Your task to perform on an android device: toggle translation in the chrome app Image 0: 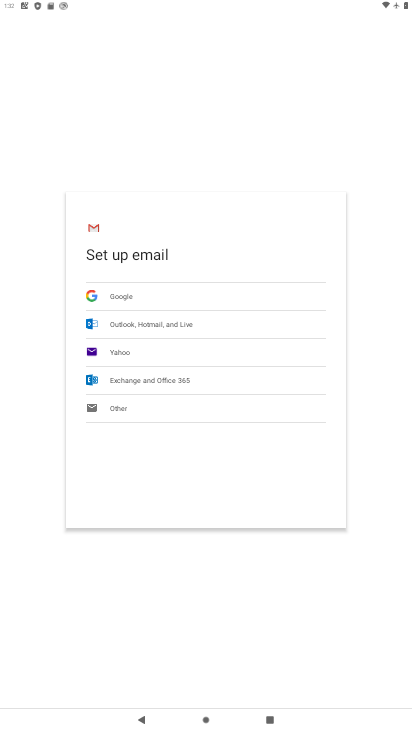
Step 0: press home button
Your task to perform on an android device: toggle translation in the chrome app Image 1: 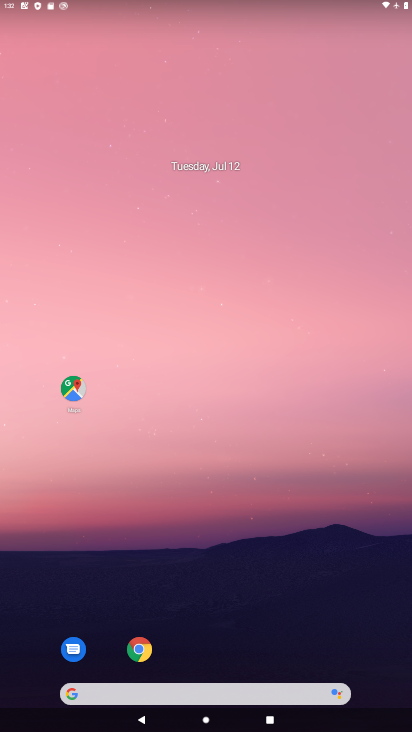
Step 1: click (148, 659)
Your task to perform on an android device: toggle translation in the chrome app Image 2: 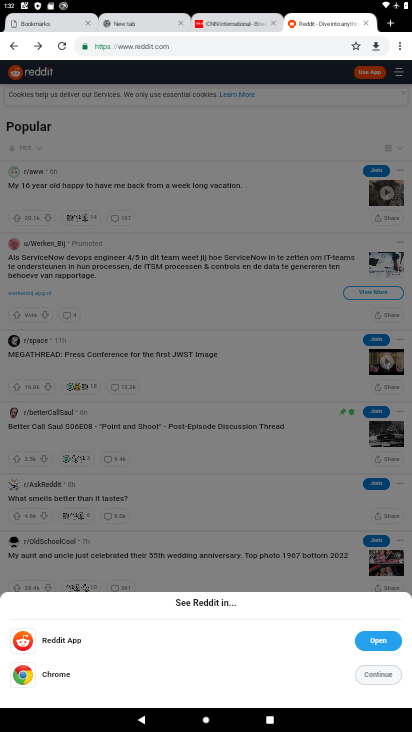
Step 2: click (401, 37)
Your task to perform on an android device: toggle translation in the chrome app Image 3: 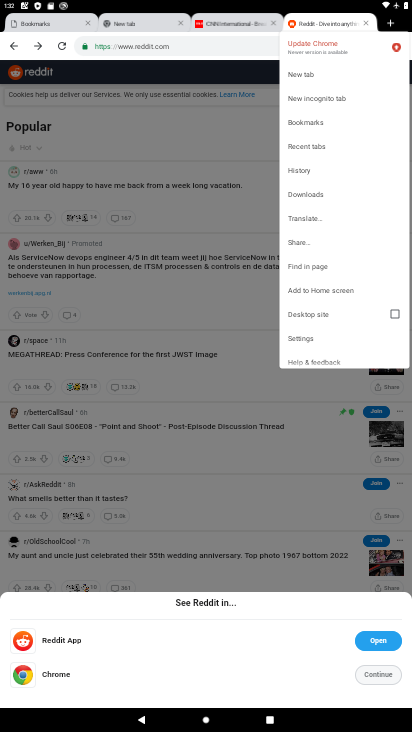
Step 3: click (341, 333)
Your task to perform on an android device: toggle translation in the chrome app Image 4: 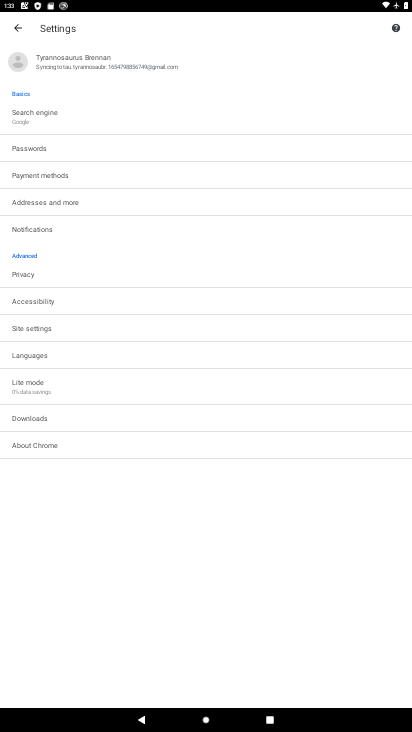
Step 4: click (142, 362)
Your task to perform on an android device: toggle translation in the chrome app Image 5: 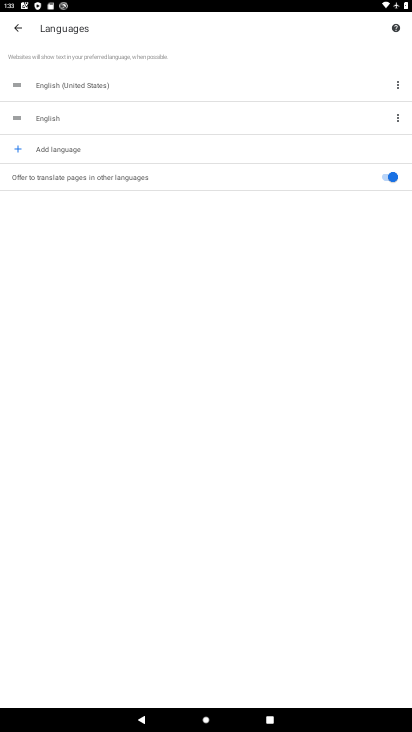
Step 5: click (387, 180)
Your task to perform on an android device: toggle translation in the chrome app Image 6: 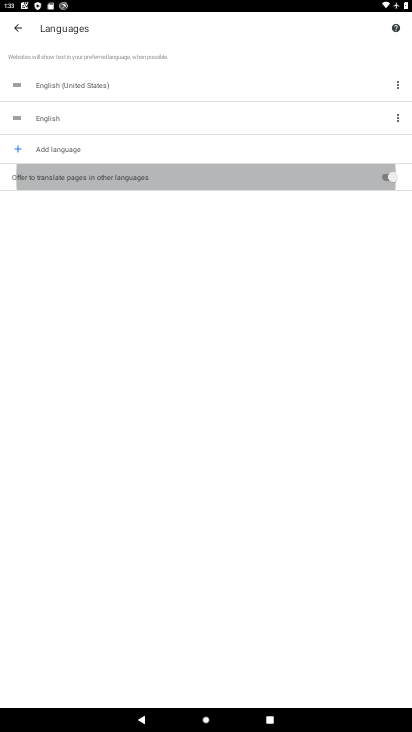
Step 6: click (387, 180)
Your task to perform on an android device: toggle translation in the chrome app Image 7: 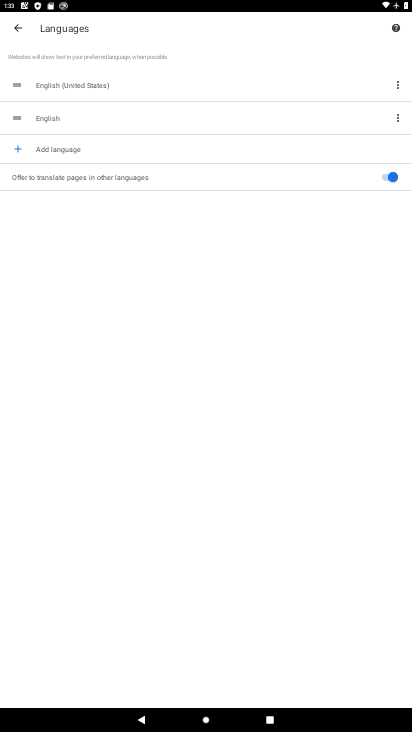
Step 7: click (387, 180)
Your task to perform on an android device: toggle translation in the chrome app Image 8: 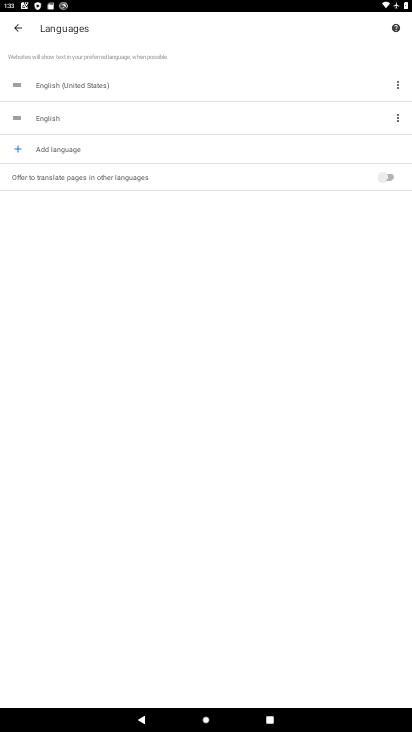
Step 8: task complete